Your task to perform on an android device: Toggle the flashlight Image 0: 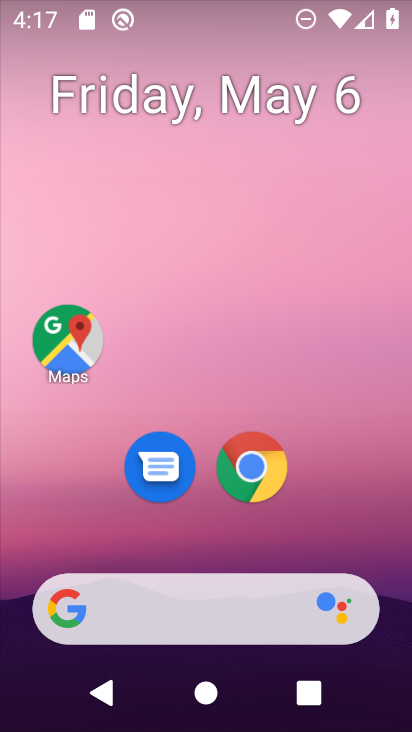
Step 0: drag from (308, 479) to (228, 121)
Your task to perform on an android device: Toggle the flashlight Image 1: 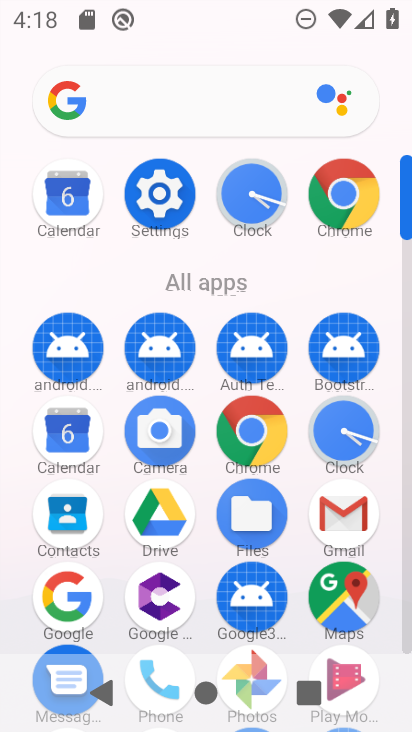
Step 1: task complete